Your task to perform on an android device: Go to Yahoo.com Image 0: 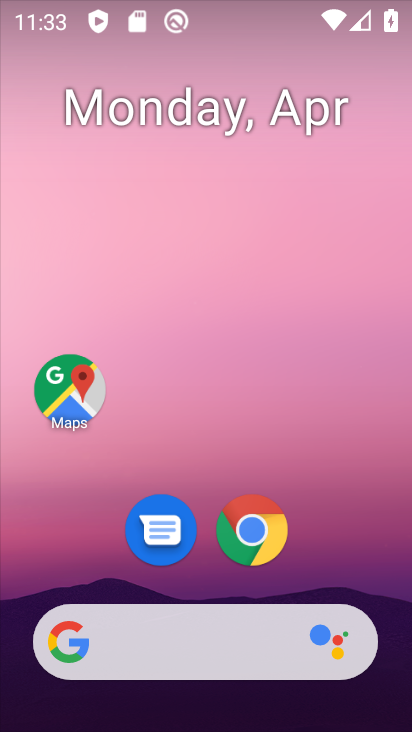
Step 0: click (258, 536)
Your task to perform on an android device: Go to Yahoo.com Image 1: 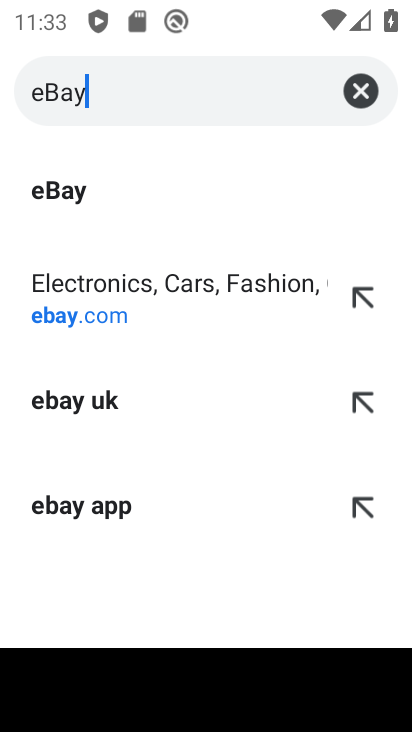
Step 1: click (366, 92)
Your task to perform on an android device: Go to Yahoo.com Image 2: 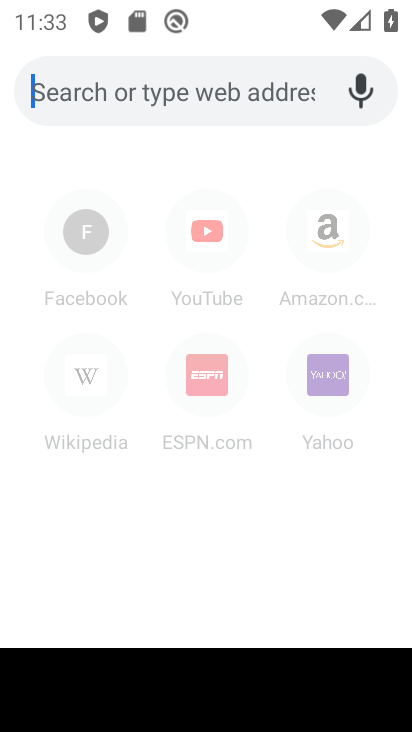
Step 2: click (336, 394)
Your task to perform on an android device: Go to Yahoo.com Image 3: 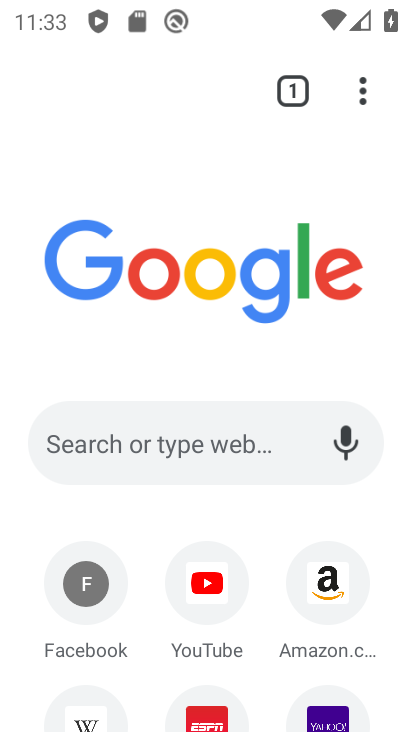
Step 3: click (325, 716)
Your task to perform on an android device: Go to Yahoo.com Image 4: 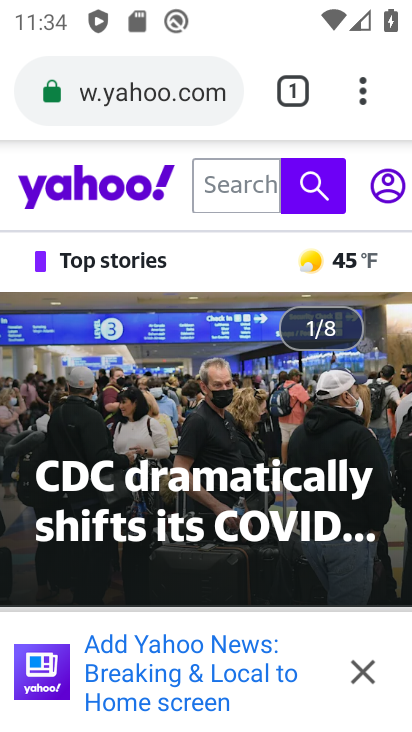
Step 4: task complete